Your task to perform on an android device: check storage Image 0: 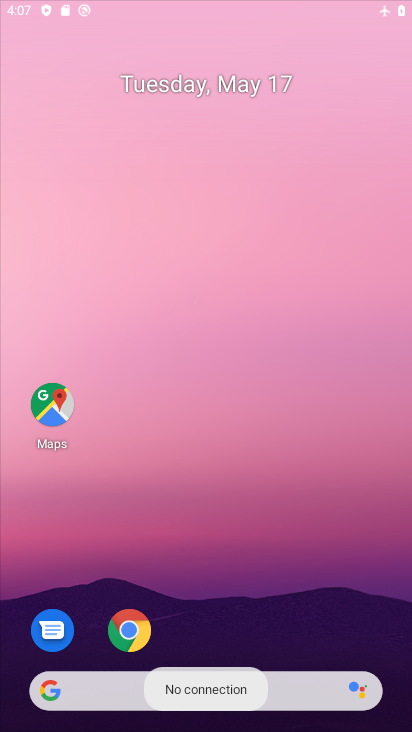
Step 0: click (224, 289)
Your task to perform on an android device: check storage Image 1: 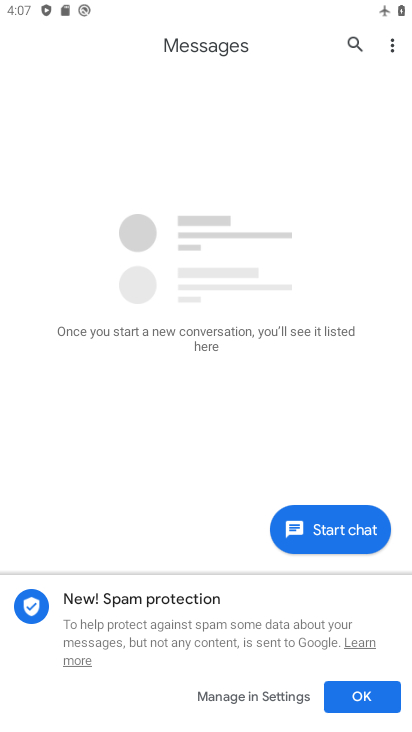
Step 1: press home button
Your task to perform on an android device: check storage Image 2: 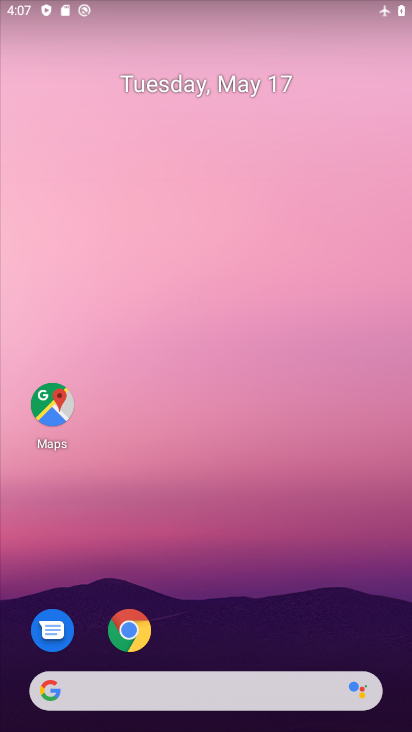
Step 2: drag from (224, 710) to (234, 298)
Your task to perform on an android device: check storage Image 3: 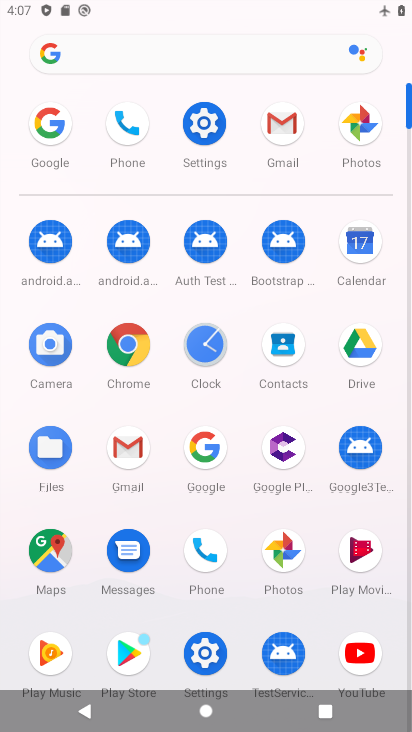
Step 3: click (205, 118)
Your task to perform on an android device: check storage Image 4: 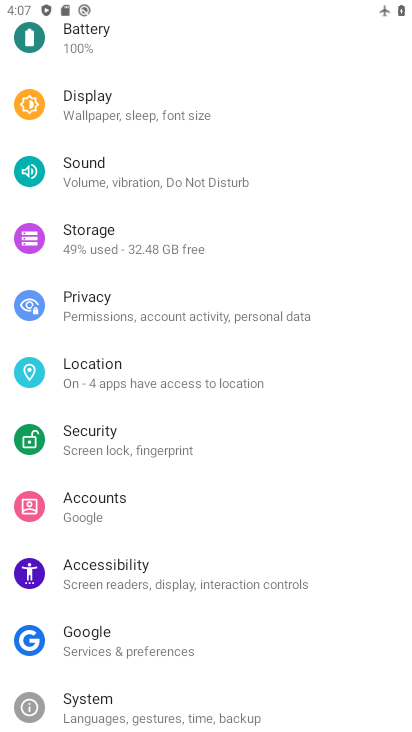
Step 4: click (108, 245)
Your task to perform on an android device: check storage Image 5: 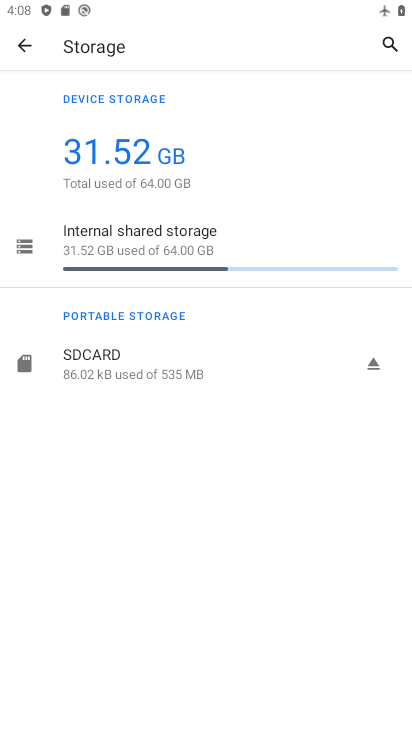
Step 5: task complete